Your task to perform on an android device: Go to Reddit.com Image 0: 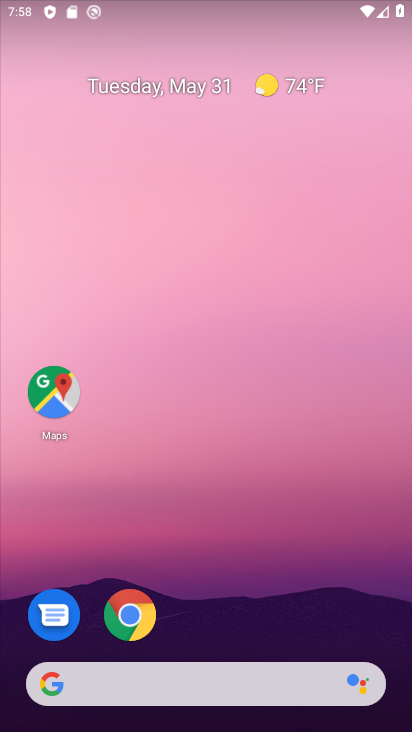
Step 0: click (133, 638)
Your task to perform on an android device: Go to Reddit.com Image 1: 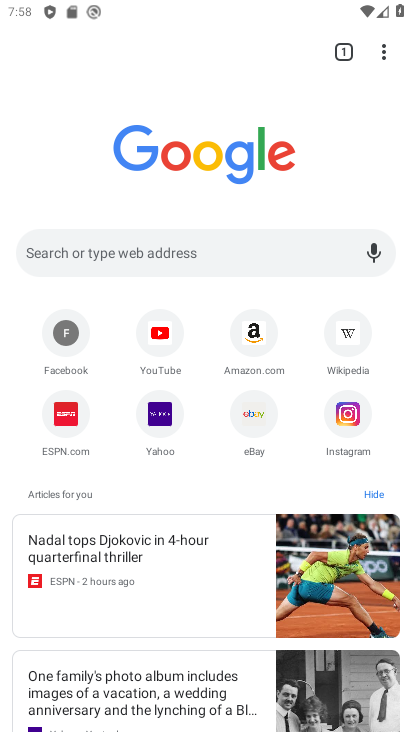
Step 1: click (95, 240)
Your task to perform on an android device: Go to Reddit.com Image 2: 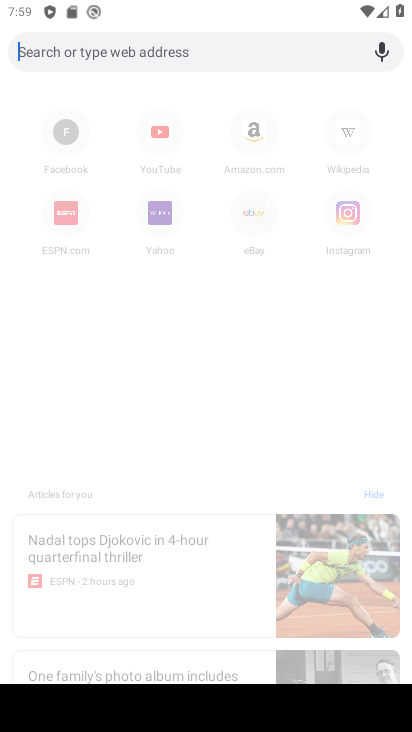
Step 2: type "Reddit.com"
Your task to perform on an android device: Go to Reddit.com Image 3: 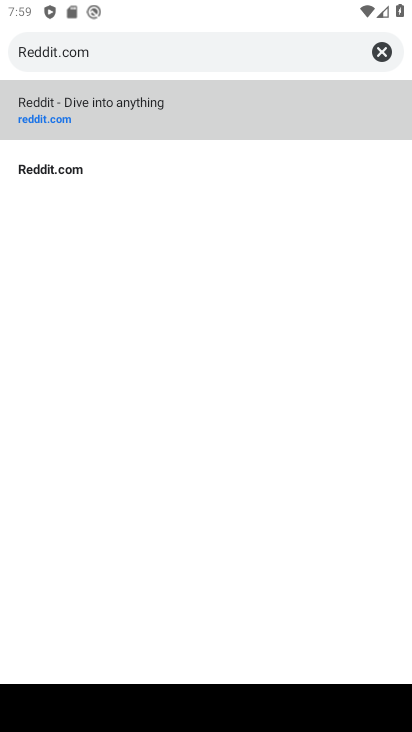
Step 3: click (123, 117)
Your task to perform on an android device: Go to Reddit.com Image 4: 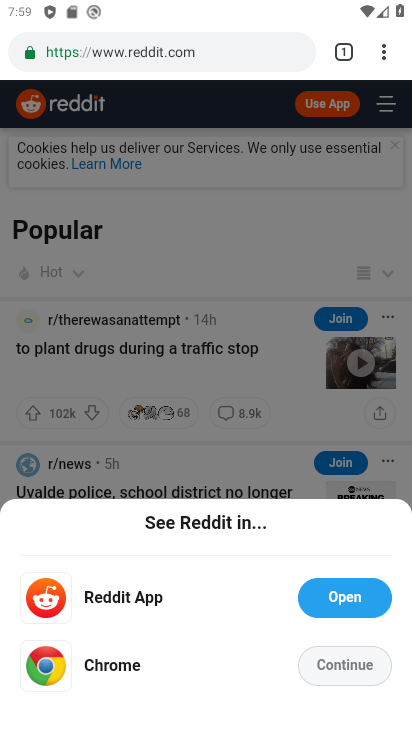
Step 4: click (366, 653)
Your task to perform on an android device: Go to Reddit.com Image 5: 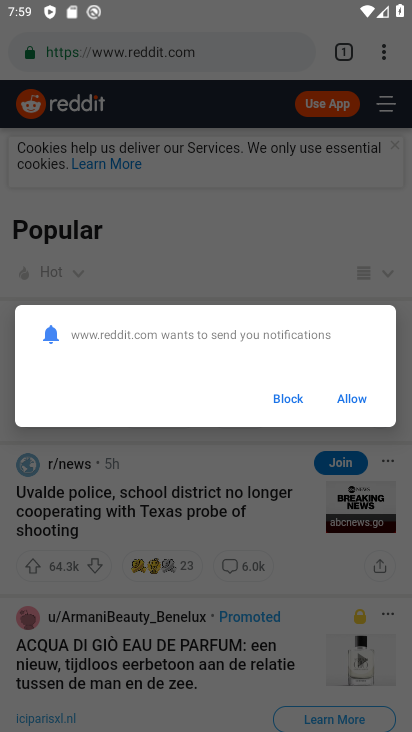
Step 5: task complete